Your task to perform on an android device: delete the emails in spam in the gmail app Image 0: 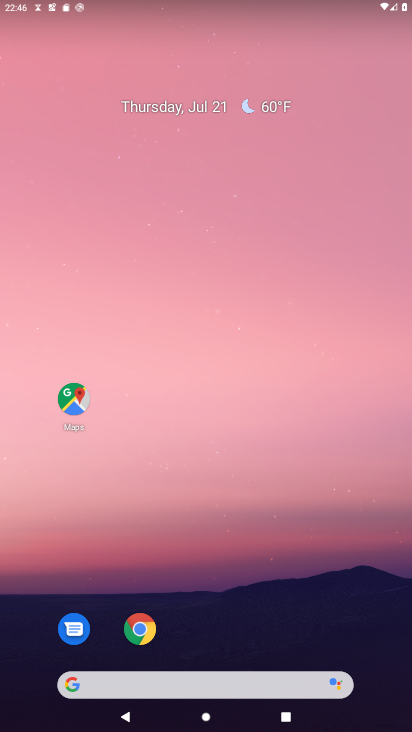
Step 0: drag from (220, 640) to (222, 207)
Your task to perform on an android device: delete the emails in spam in the gmail app Image 1: 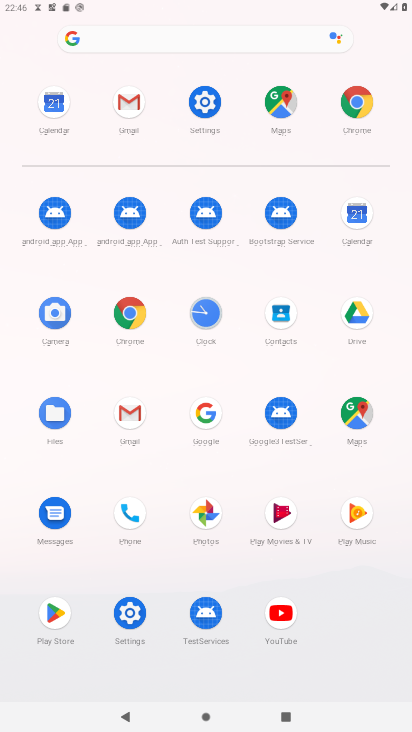
Step 1: click (123, 103)
Your task to perform on an android device: delete the emails in spam in the gmail app Image 2: 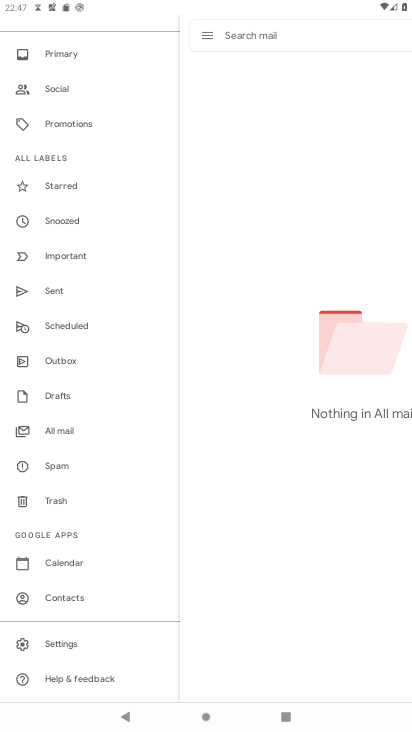
Step 2: click (62, 454)
Your task to perform on an android device: delete the emails in spam in the gmail app Image 3: 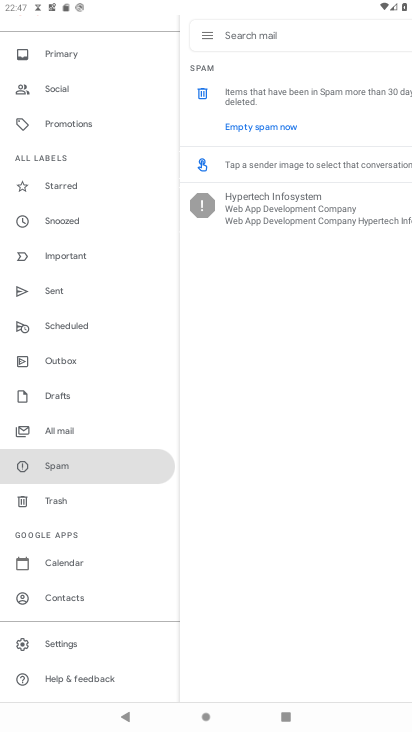
Step 3: click (295, 199)
Your task to perform on an android device: delete the emails in spam in the gmail app Image 4: 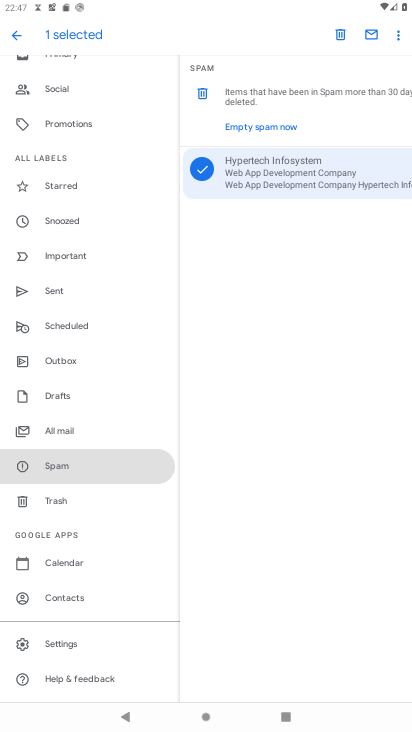
Step 4: click (338, 37)
Your task to perform on an android device: delete the emails in spam in the gmail app Image 5: 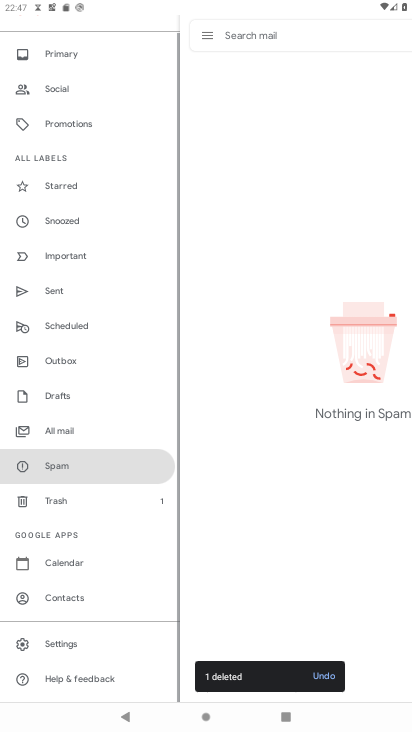
Step 5: task complete